Your task to perform on an android device: toggle improve location accuracy Image 0: 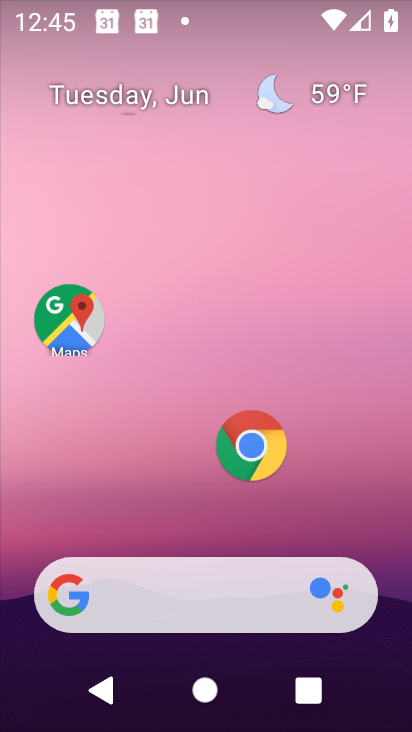
Step 0: drag from (191, 503) to (189, 23)
Your task to perform on an android device: toggle improve location accuracy Image 1: 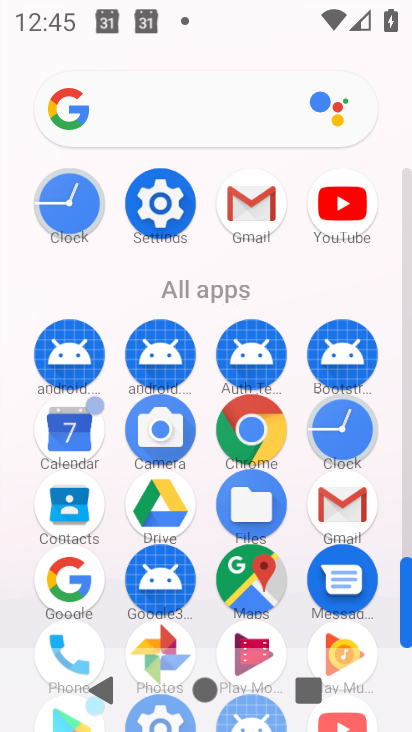
Step 1: click (171, 229)
Your task to perform on an android device: toggle improve location accuracy Image 2: 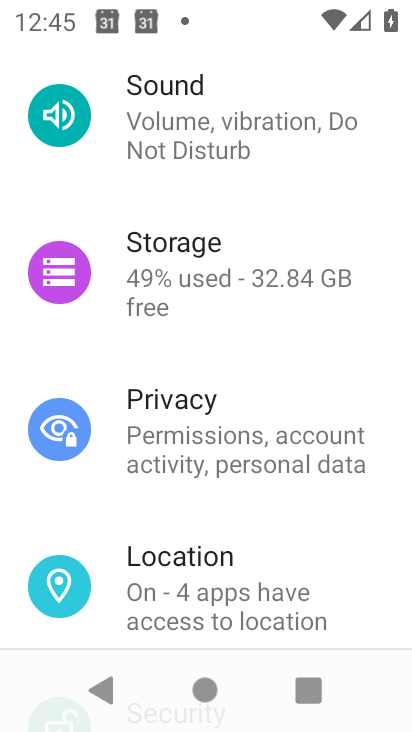
Step 2: click (153, 577)
Your task to perform on an android device: toggle improve location accuracy Image 3: 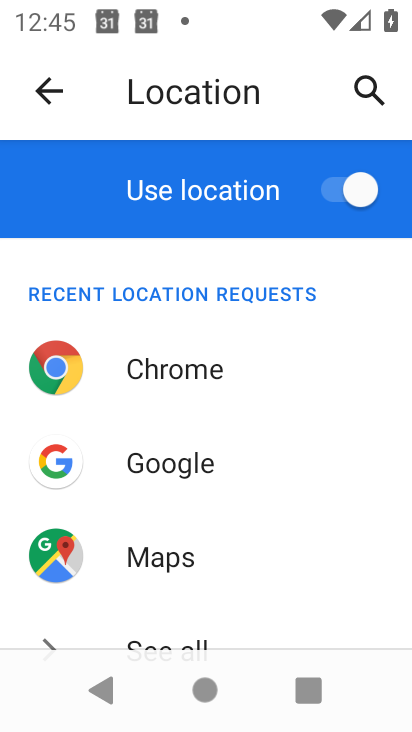
Step 3: drag from (153, 577) to (174, 239)
Your task to perform on an android device: toggle improve location accuracy Image 4: 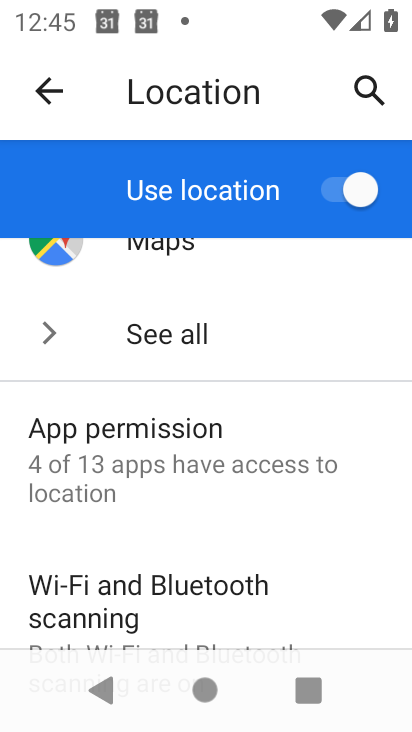
Step 4: drag from (103, 579) to (200, 54)
Your task to perform on an android device: toggle improve location accuracy Image 5: 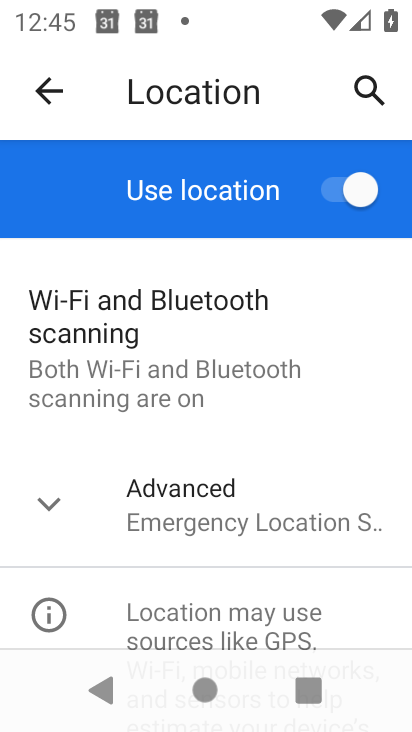
Step 5: click (141, 544)
Your task to perform on an android device: toggle improve location accuracy Image 6: 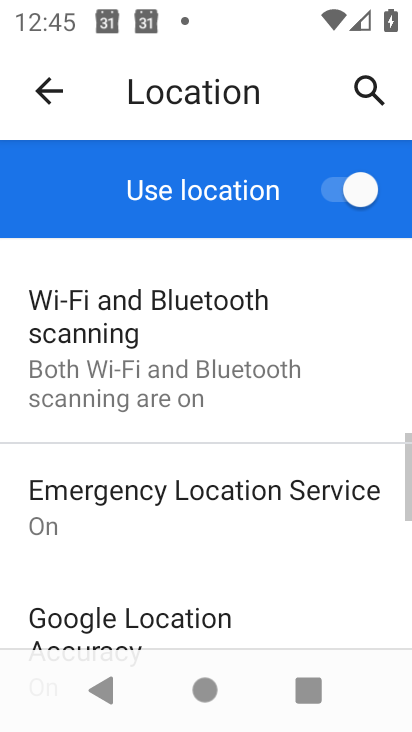
Step 6: drag from (141, 544) to (185, 141)
Your task to perform on an android device: toggle improve location accuracy Image 7: 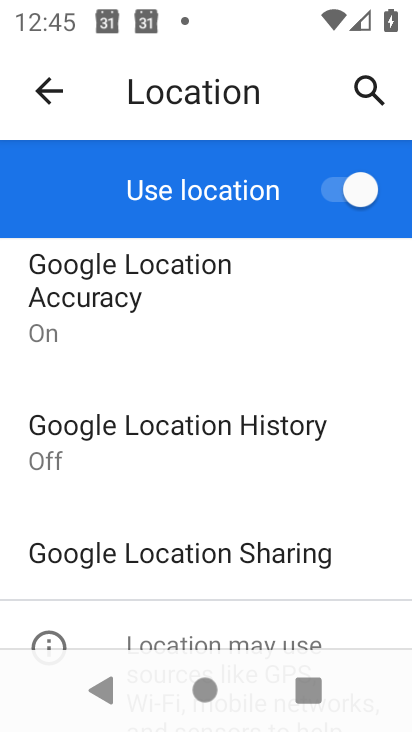
Step 7: click (170, 304)
Your task to perform on an android device: toggle improve location accuracy Image 8: 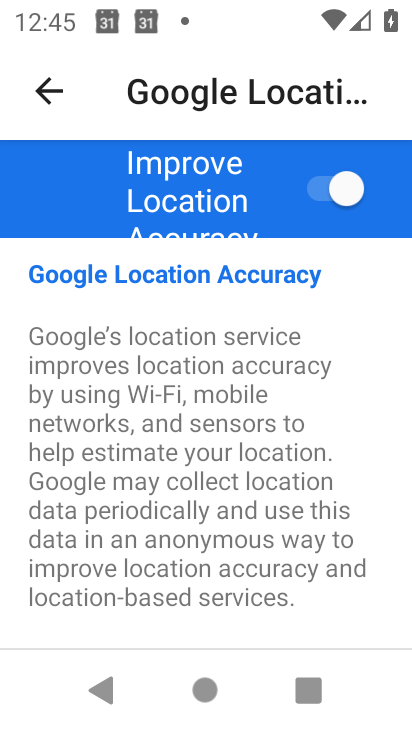
Step 8: click (335, 183)
Your task to perform on an android device: toggle improve location accuracy Image 9: 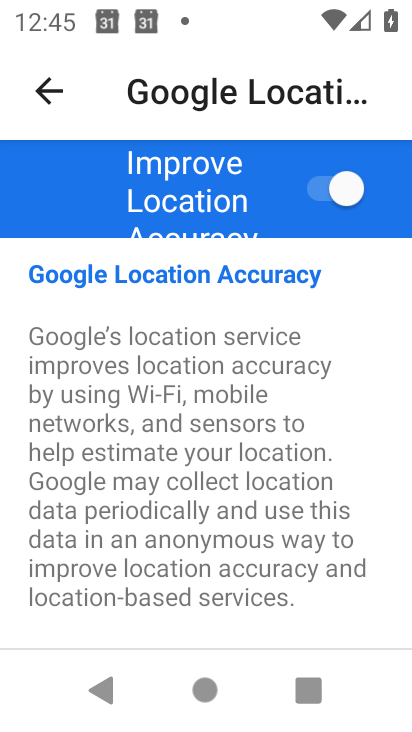
Step 9: click (335, 183)
Your task to perform on an android device: toggle improve location accuracy Image 10: 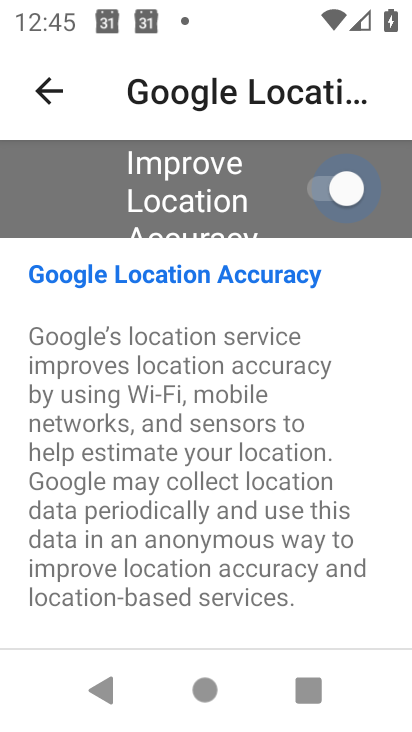
Step 10: click (335, 183)
Your task to perform on an android device: toggle improve location accuracy Image 11: 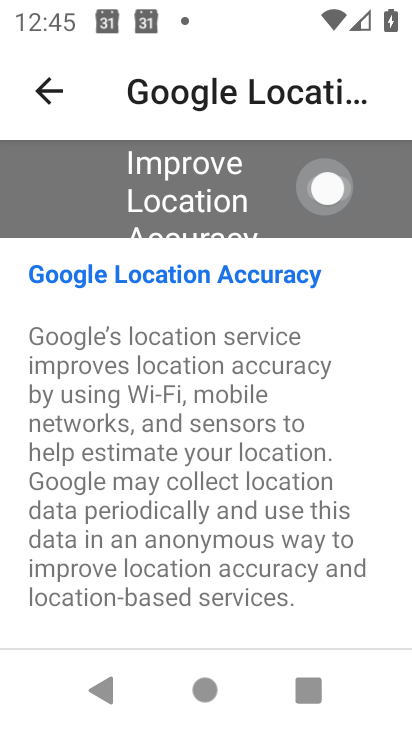
Step 11: click (335, 183)
Your task to perform on an android device: toggle improve location accuracy Image 12: 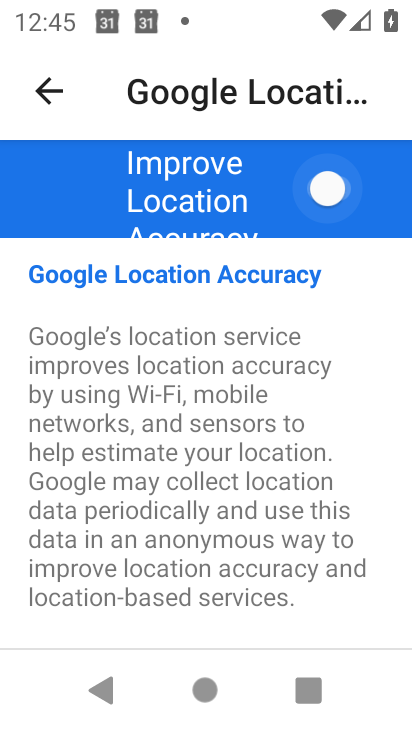
Step 12: click (335, 183)
Your task to perform on an android device: toggle improve location accuracy Image 13: 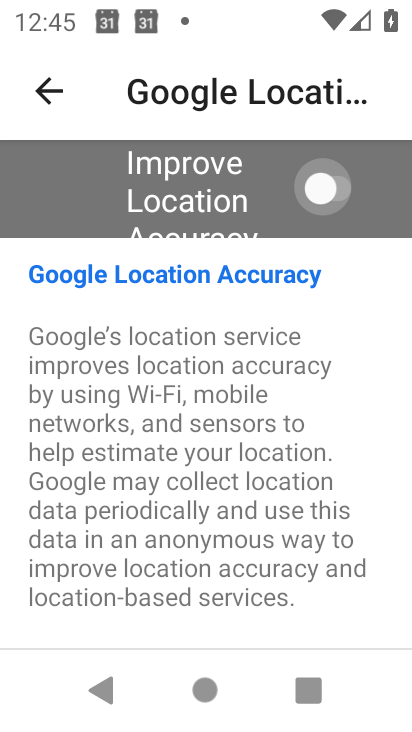
Step 13: click (335, 183)
Your task to perform on an android device: toggle improve location accuracy Image 14: 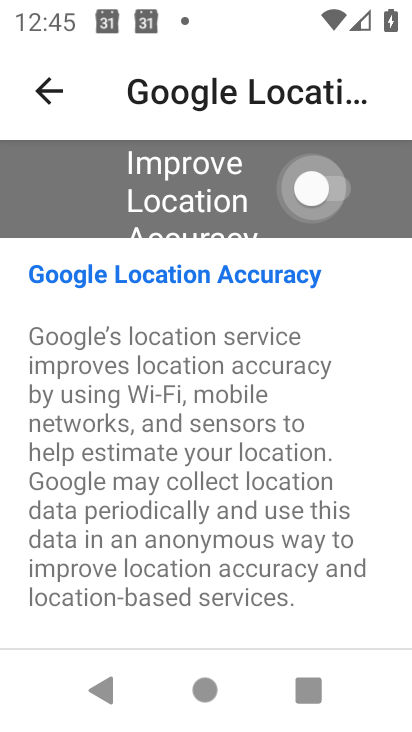
Step 14: click (335, 183)
Your task to perform on an android device: toggle improve location accuracy Image 15: 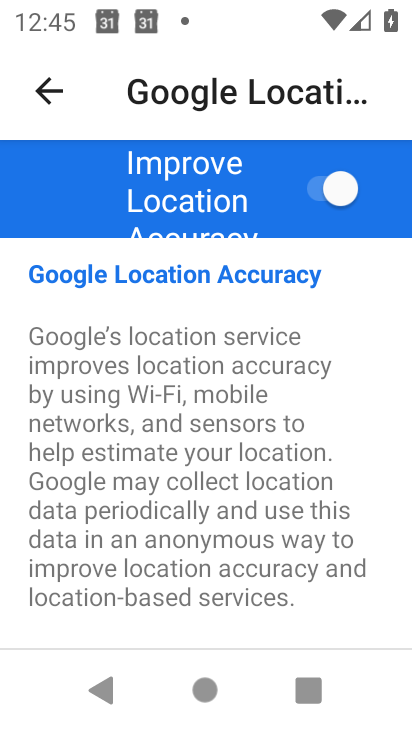
Step 15: click (335, 183)
Your task to perform on an android device: toggle improve location accuracy Image 16: 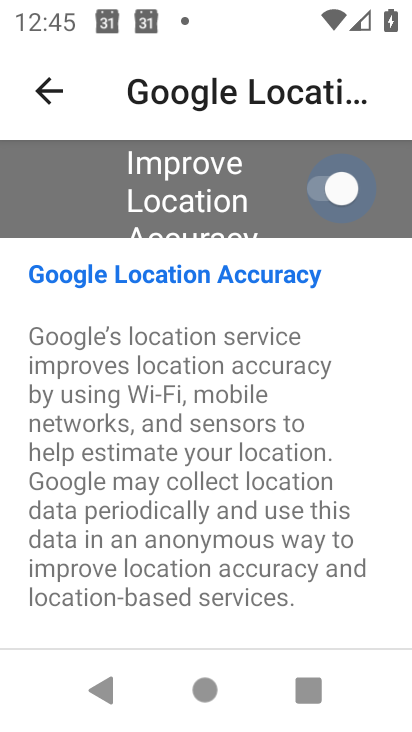
Step 16: click (335, 183)
Your task to perform on an android device: toggle improve location accuracy Image 17: 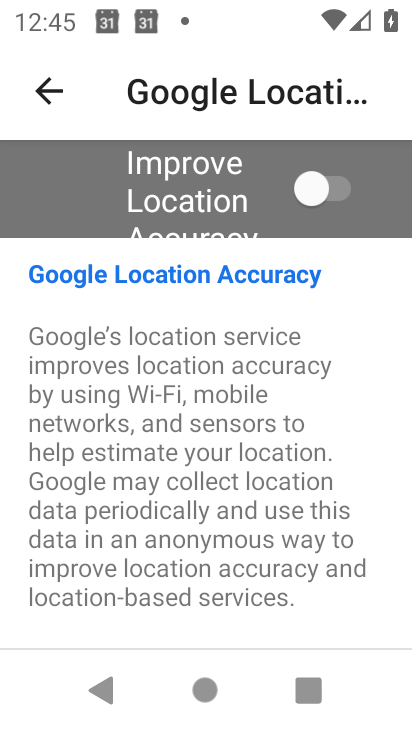
Step 17: task complete